Your task to perform on an android device: Clear the shopping cart on ebay.com. Search for razer naga on ebay.com, select the first entry, and add it to the cart. Image 0: 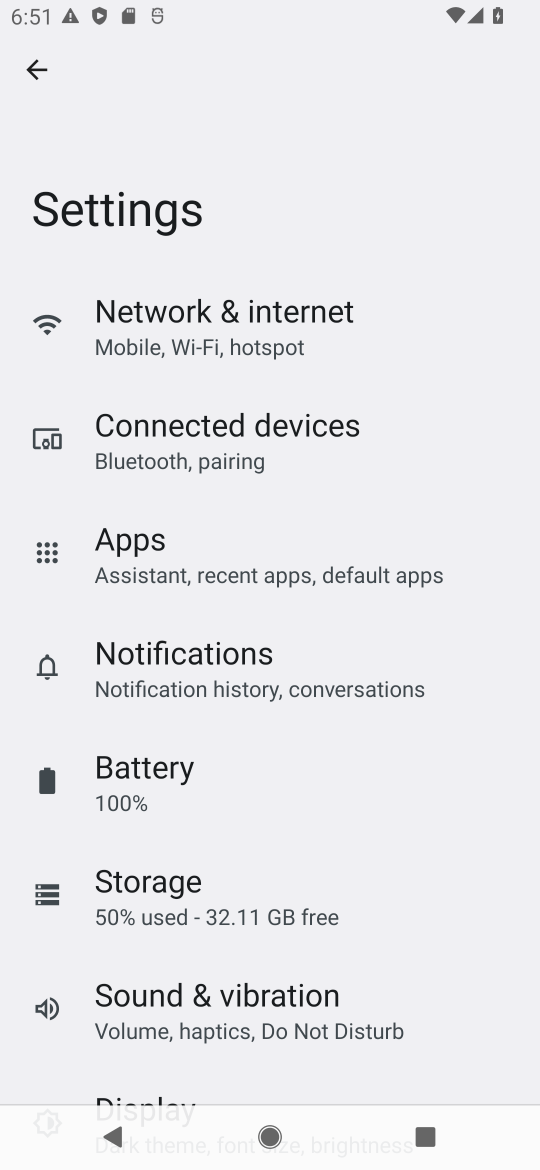
Step 0: press home button
Your task to perform on an android device: Clear the shopping cart on ebay.com. Search for razer naga on ebay.com, select the first entry, and add it to the cart. Image 1: 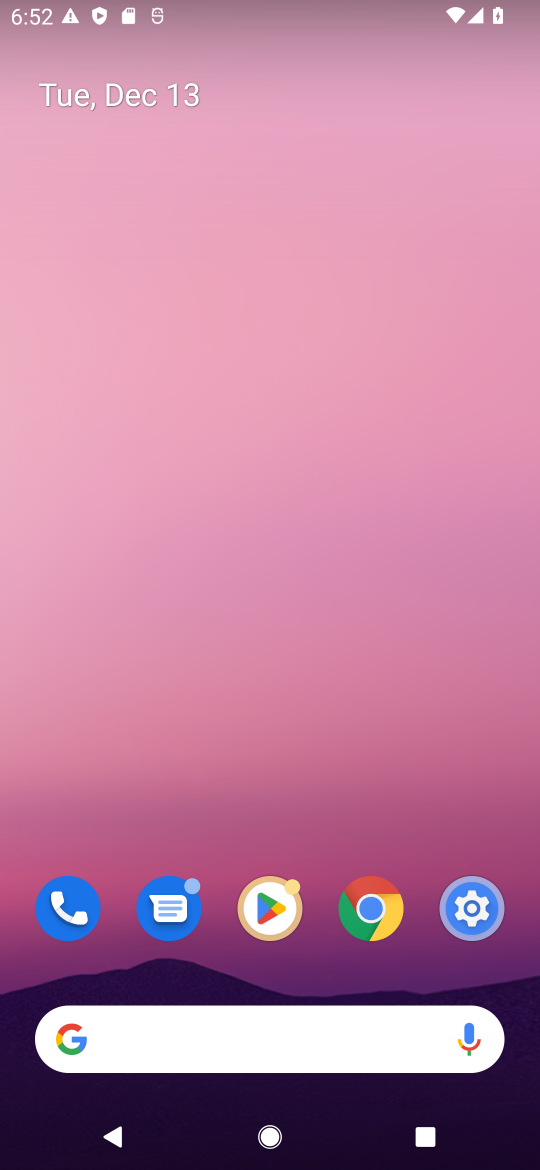
Step 1: click (124, 1045)
Your task to perform on an android device: Clear the shopping cart on ebay.com. Search for razer naga on ebay.com, select the first entry, and add it to the cart. Image 2: 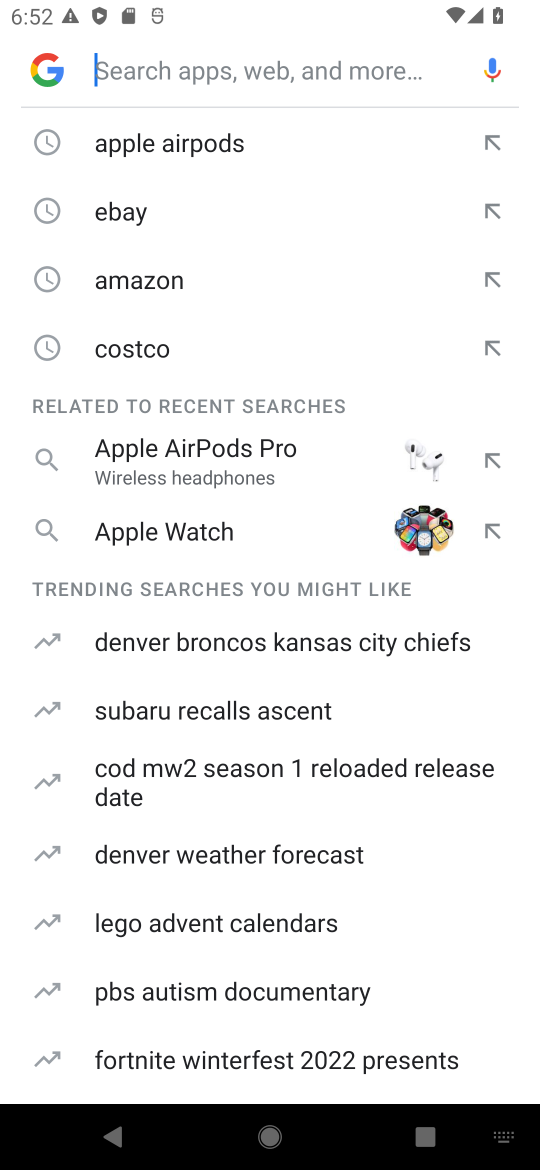
Step 2: type "ebay.com"
Your task to perform on an android device: Clear the shopping cart on ebay.com. Search for razer naga on ebay.com, select the first entry, and add it to the cart. Image 3: 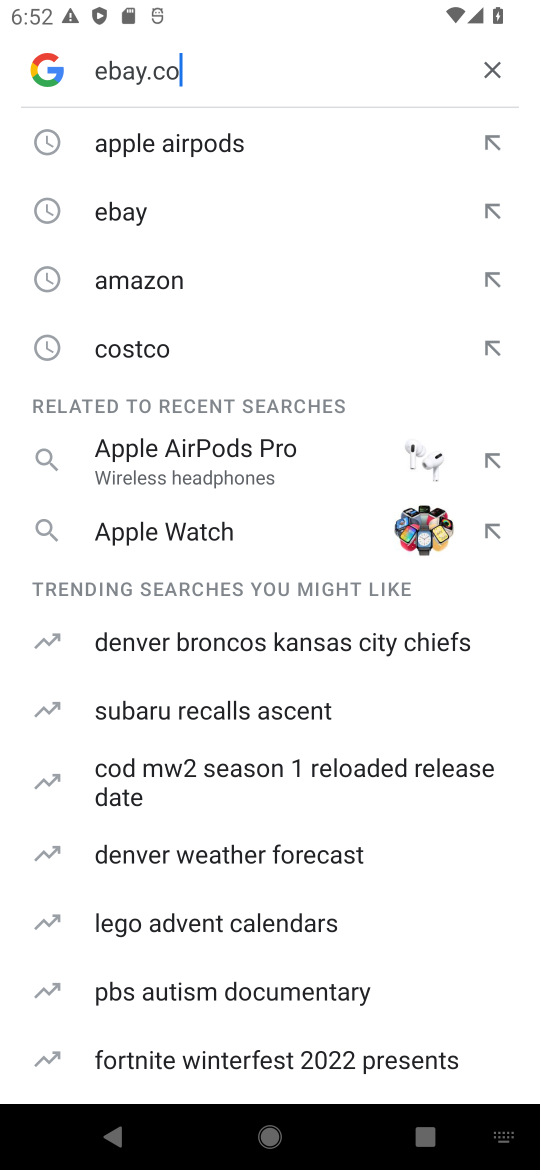
Step 3: press enter
Your task to perform on an android device: Clear the shopping cart on ebay.com. Search for razer naga on ebay.com, select the first entry, and add it to the cart. Image 4: 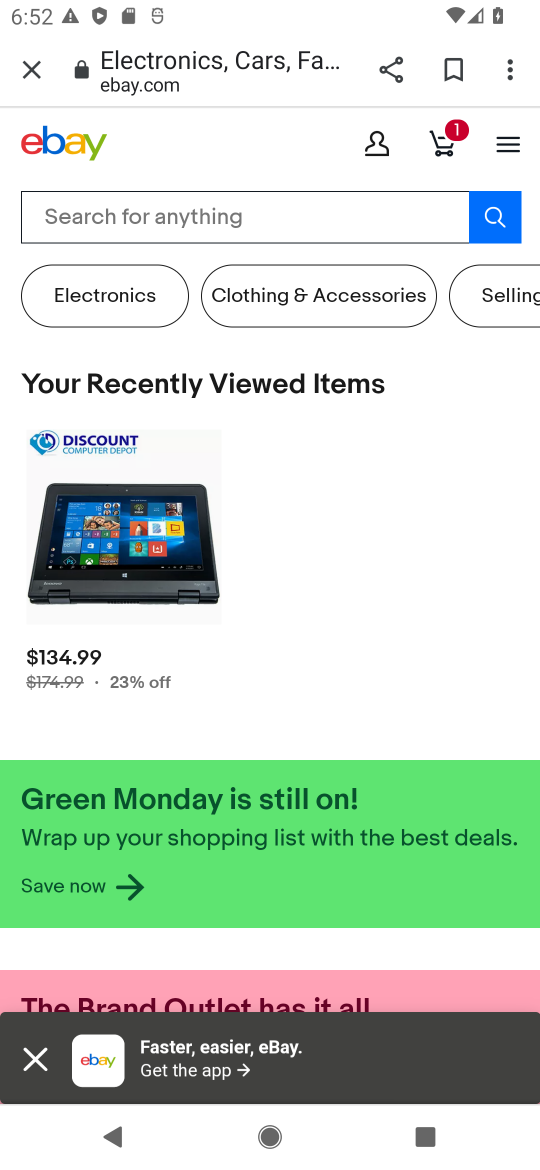
Step 4: click (456, 142)
Your task to perform on an android device: Clear the shopping cart on ebay.com. Search for razer naga on ebay.com, select the first entry, and add it to the cart. Image 5: 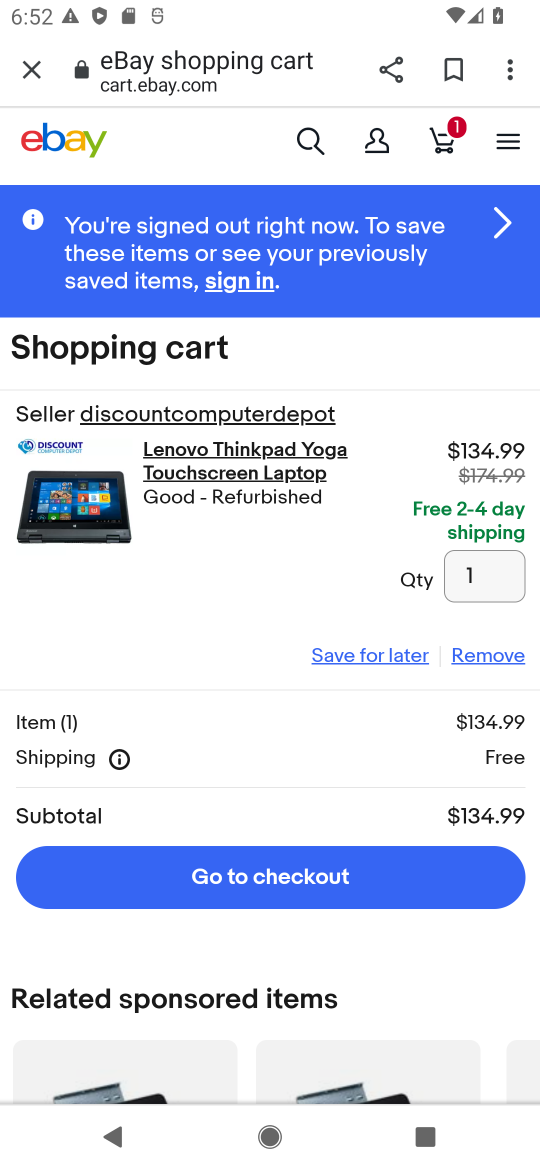
Step 5: click (479, 652)
Your task to perform on an android device: Clear the shopping cart on ebay.com. Search for razer naga on ebay.com, select the first entry, and add it to the cart. Image 6: 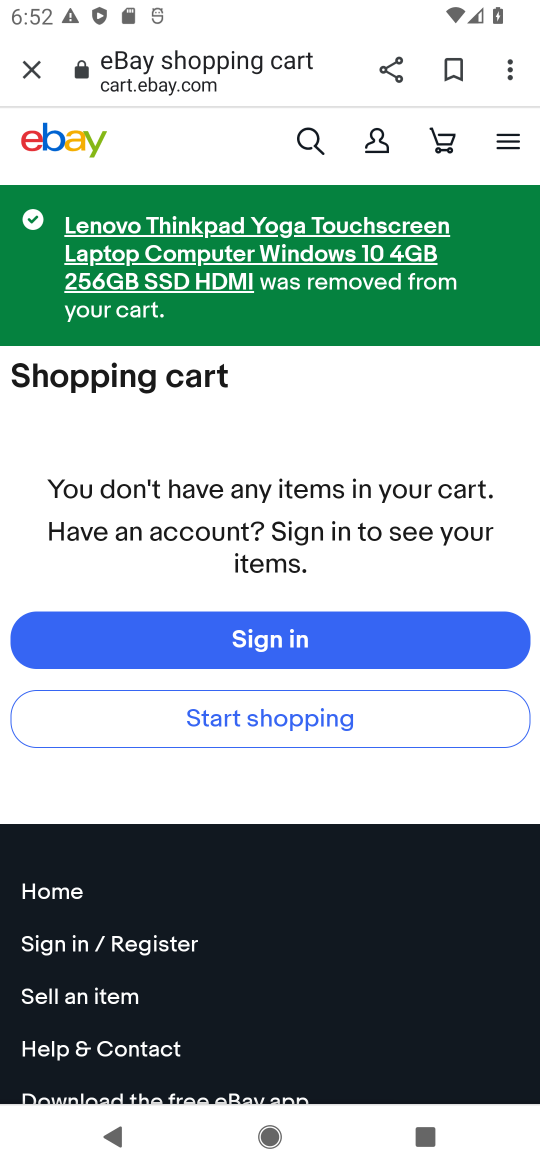
Step 6: click (309, 130)
Your task to perform on an android device: Clear the shopping cart on ebay.com. Search for razer naga on ebay.com, select the first entry, and add it to the cart. Image 7: 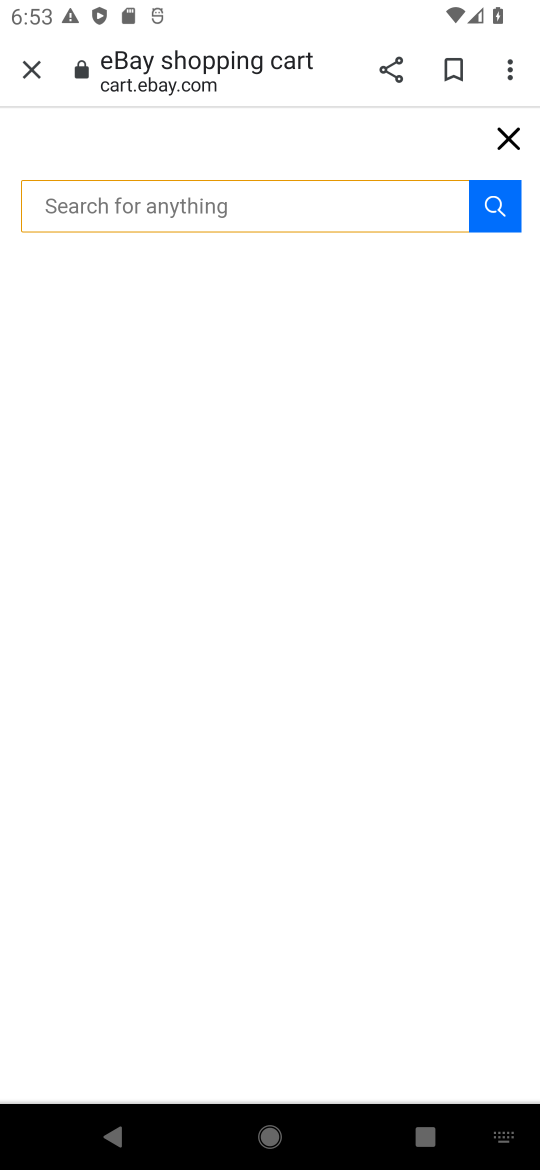
Step 7: click (197, 203)
Your task to perform on an android device: Clear the shopping cart on ebay.com. Search for razer naga on ebay.com, select the first entry, and add it to the cart. Image 8: 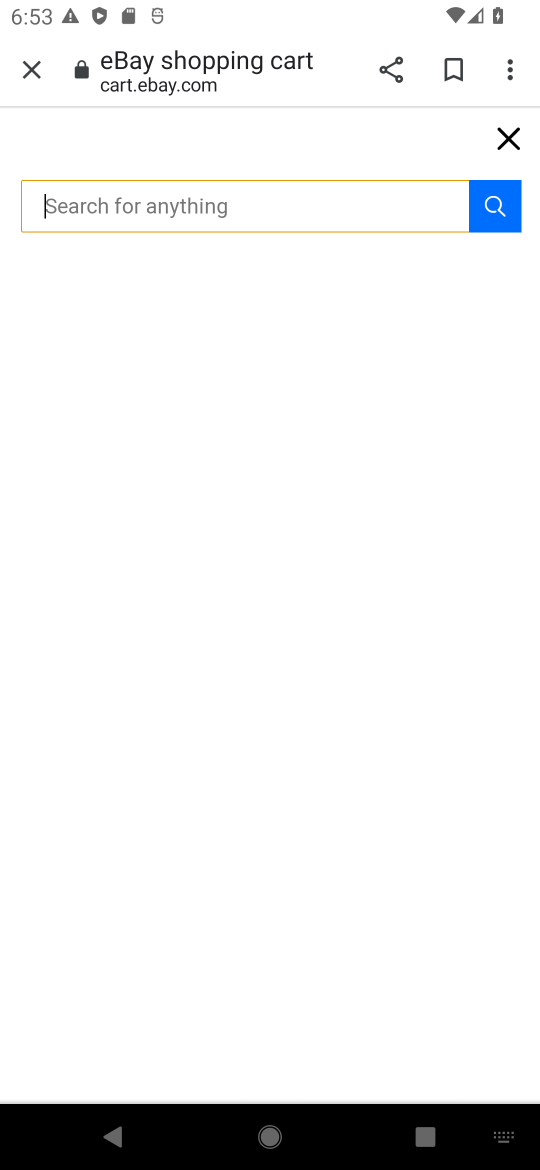
Step 8: type "razer naga"
Your task to perform on an android device: Clear the shopping cart on ebay.com. Search for razer naga on ebay.com, select the first entry, and add it to the cart. Image 9: 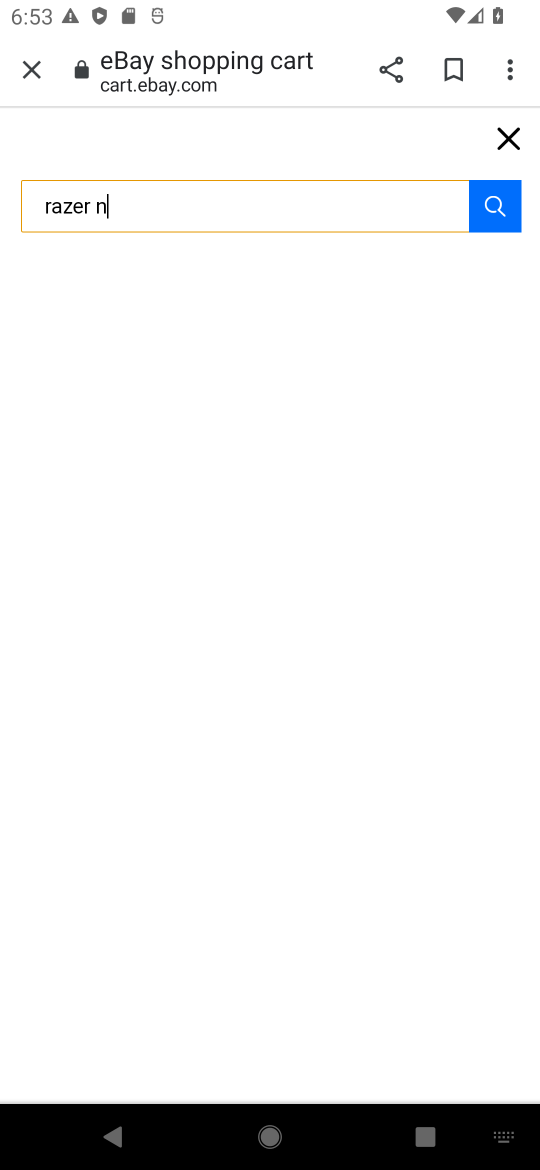
Step 9: press enter
Your task to perform on an android device: Clear the shopping cart on ebay.com. Search for razer naga on ebay.com, select the first entry, and add it to the cart. Image 10: 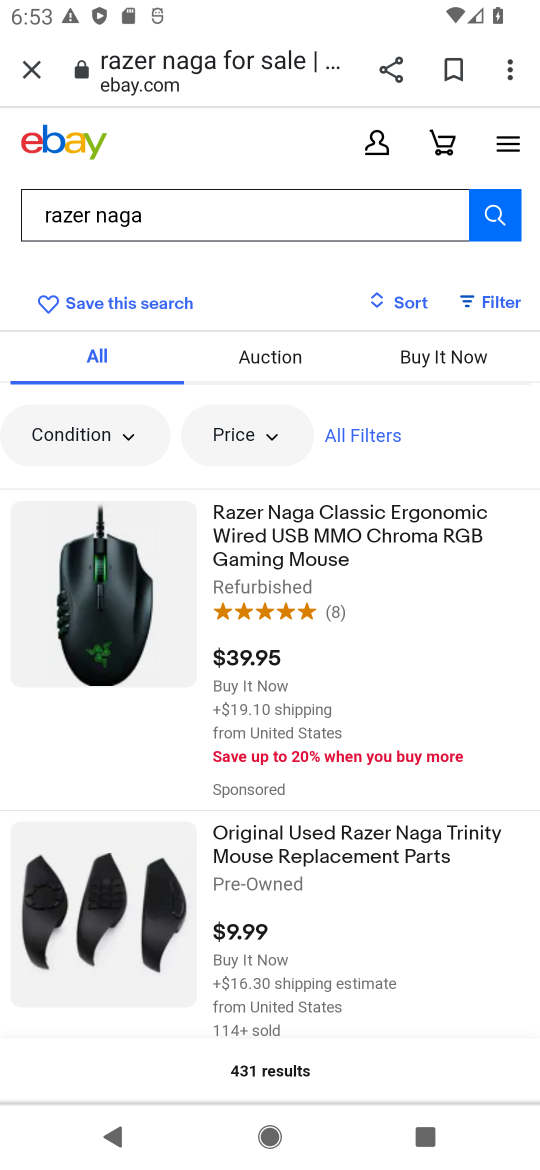
Step 10: click (265, 548)
Your task to perform on an android device: Clear the shopping cart on ebay.com. Search for razer naga on ebay.com, select the first entry, and add it to the cart. Image 11: 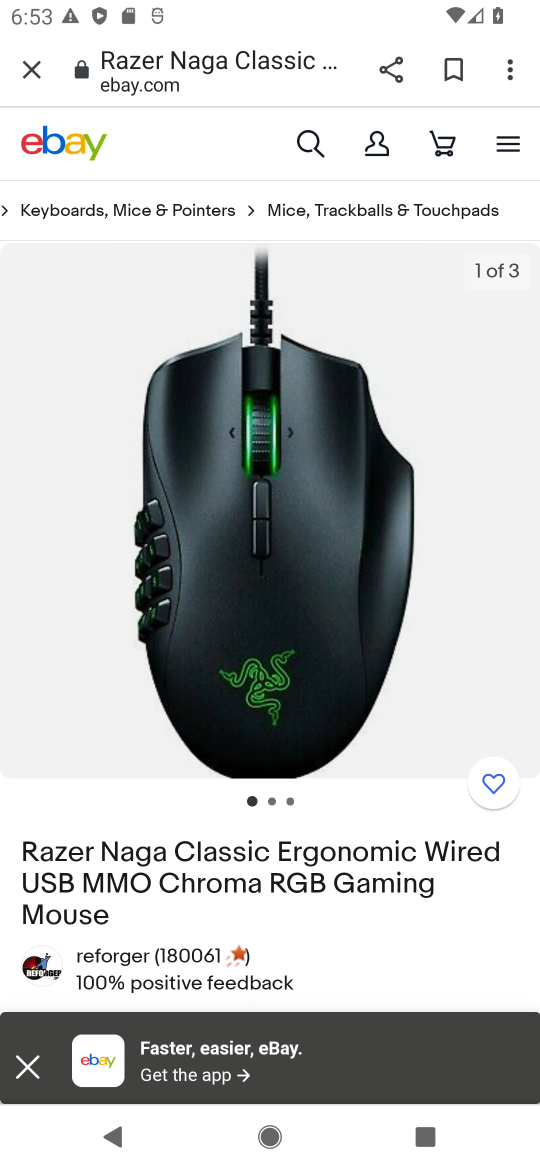
Step 11: drag from (377, 921) to (385, 422)
Your task to perform on an android device: Clear the shopping cart on ebay.com. Search for razer naga on ebay.com, select the first entry, and add it to the cart. Image 12: 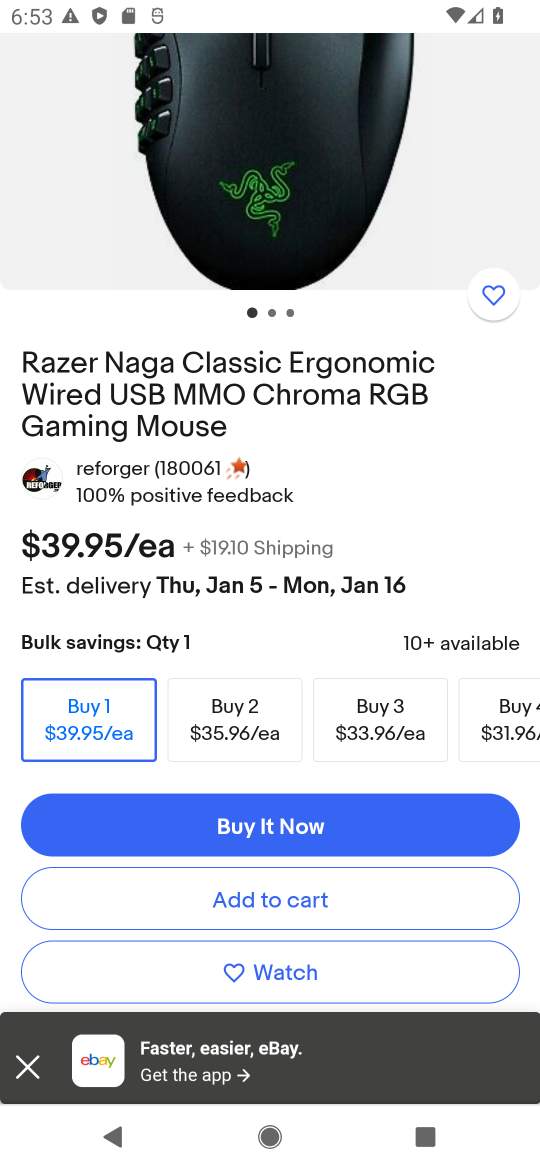
Step 12: drag from (345, 953) to (387, 386)
Your task to perform on an android device: Clear the shopping cart on ebay.com. Search for razer naga on ebay.com, select the first entry, and add it to the cart. Image 13: 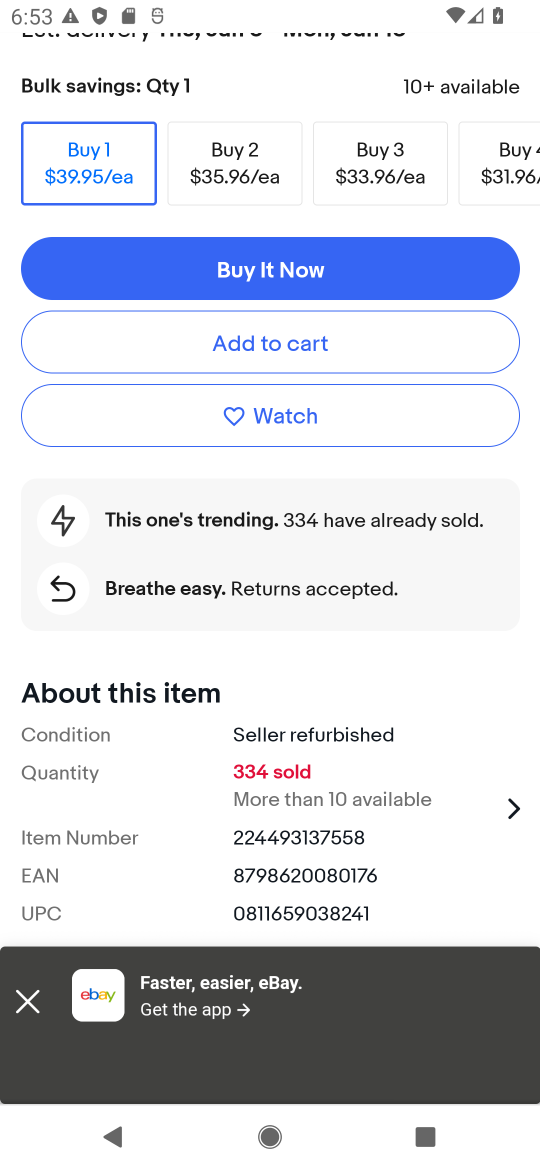
Step 13: click (259, 341)
Your task to perform on an android device: Clear the shopping cart on ebay.com. Search for razer naga on ebay.com, select the first entry, and add it to the cart. Image 14: 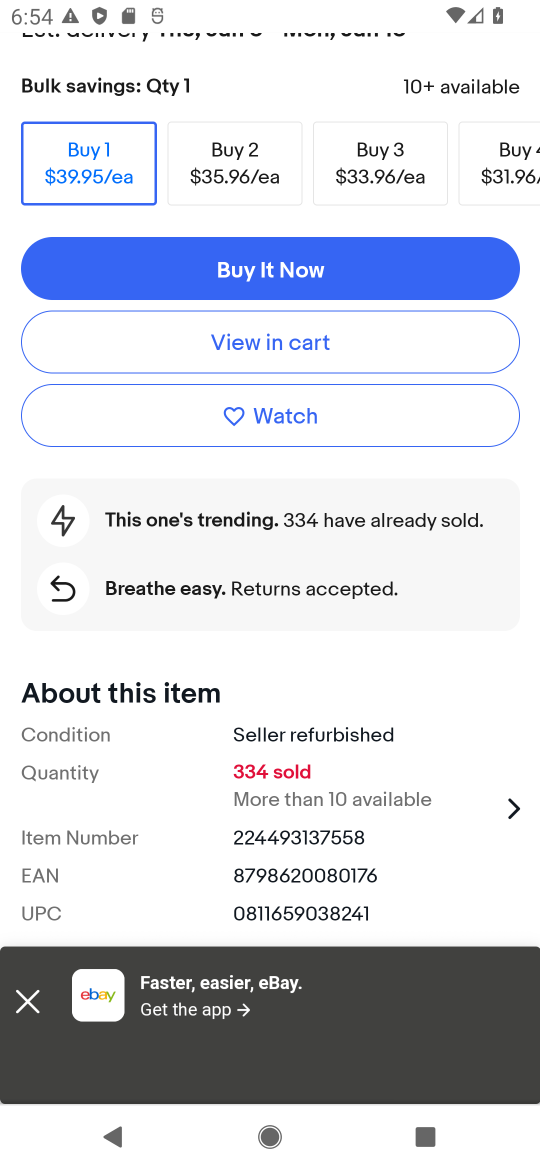
Step 14: task complete